Your task to perform on an android device: Open notification settings Image 0: 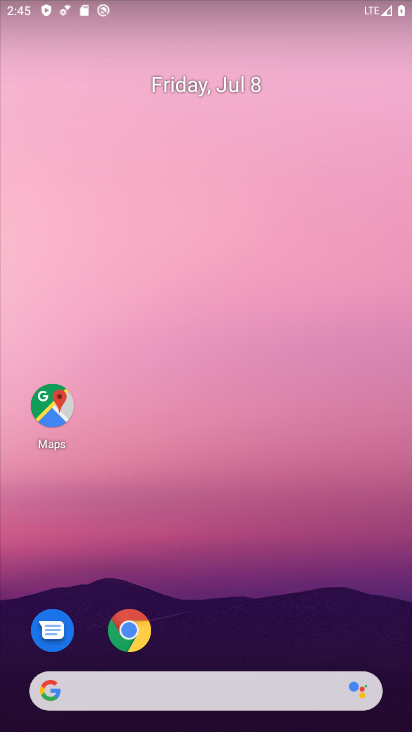
Step 0: drag from (238, 512) to (227, 200)
Your task to perform on an android device: Open notification settings Image 1: 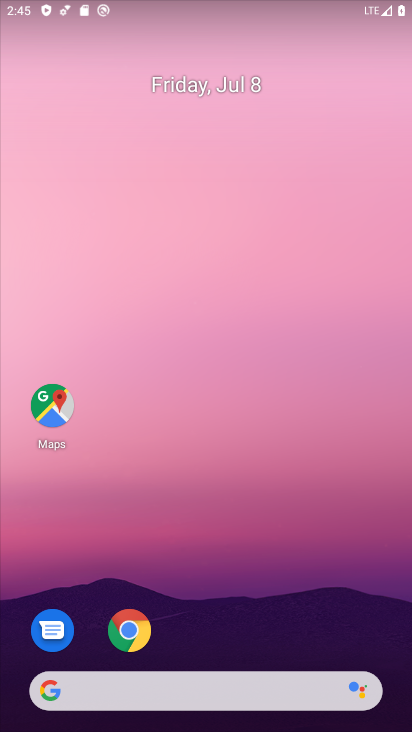
Step 1: drag from (214, 517) to (226, 243)
Your task to perform on an android device: Open notification settings Image 2: 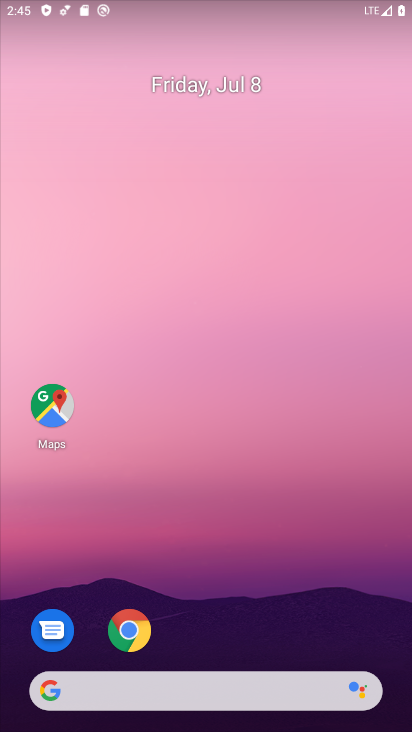
Step 2: drag from (242, 382) to (289, 25)
Your task to perform on an android device: Open notification settings Image 3: 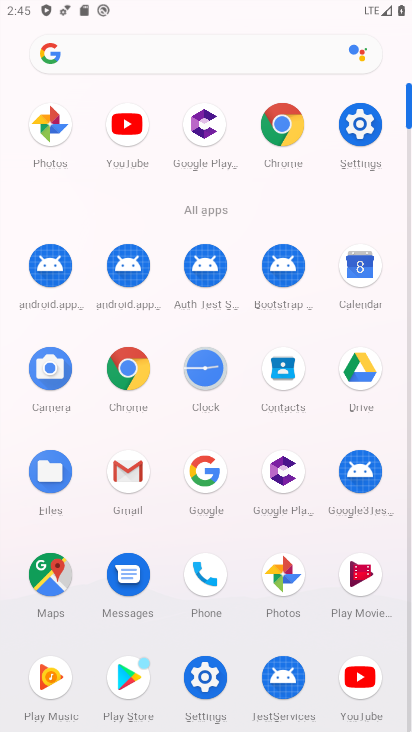
Step 3: click (198, 682)
Your task to perform on an android device: Open notification settings Image 4: 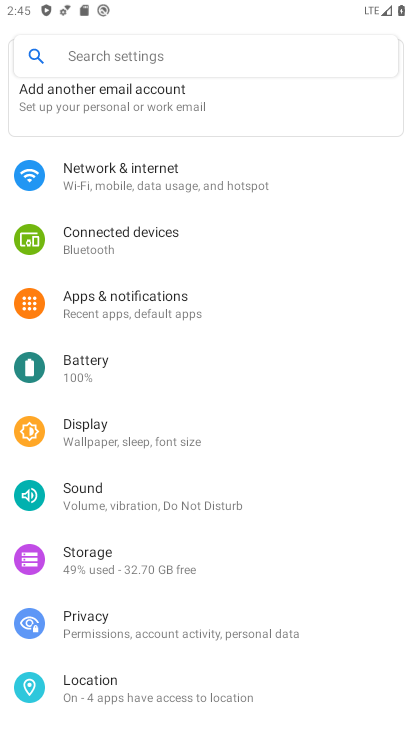
Step 4: click (118, 304)
Your task to perform on an android device: Open notification settings Image 5: 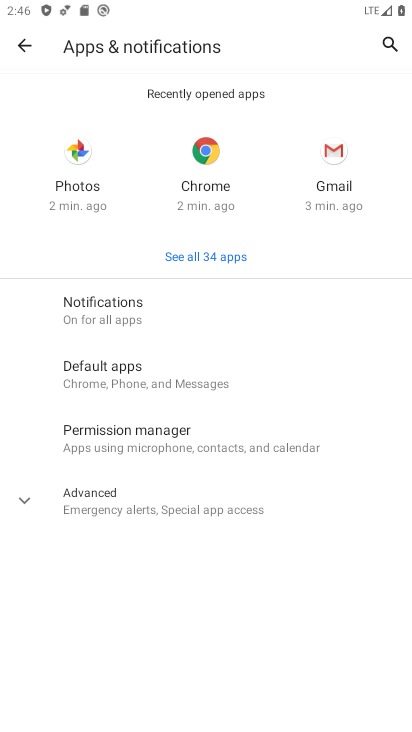
Step 5: task complete